Your task to perform on an android device: toggle wifi Image 0: 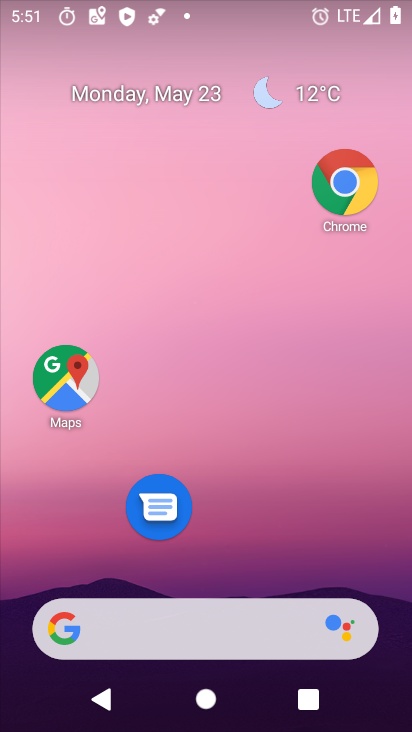
Step 0: drag from (185, 29) to (140, 452)
Your task to perform on an android device: toggle wifi Image 1: 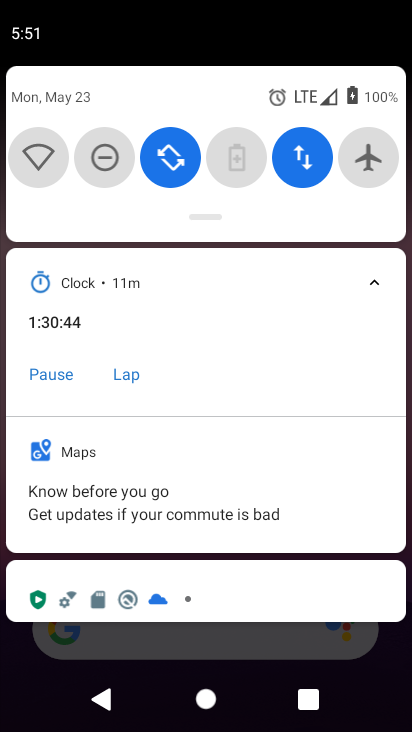
Step 1: drag from (93, 273) to (81, 581)
Your task to perform on an android device: toggle wifi Image 2: 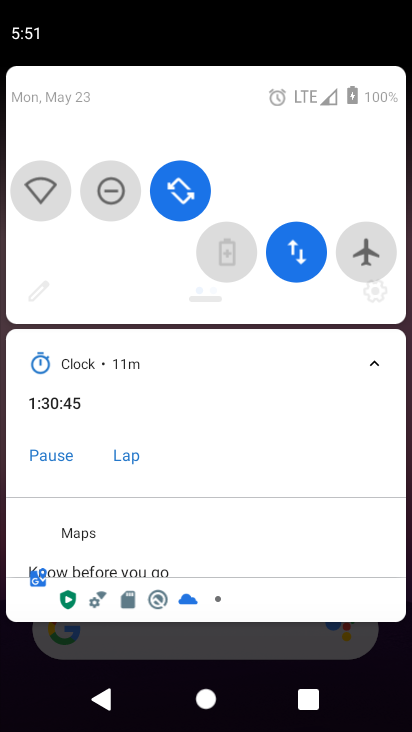
Step 2: click (45, 169)
Your task to perform on an android device: toggle wifi Image 3: 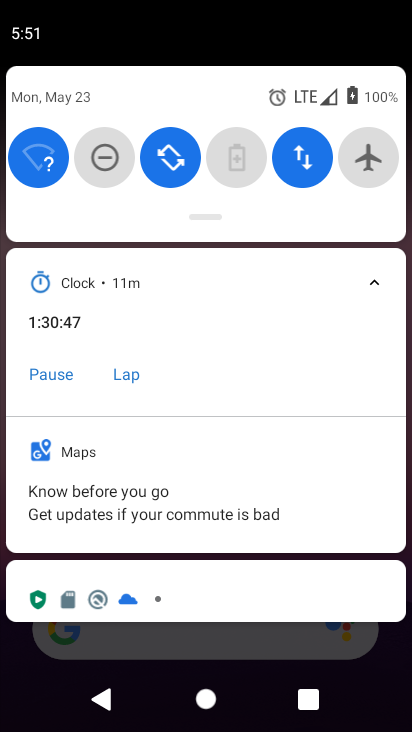
Step 3: click (45, 169)
Your task to perform on an android device: toggle wifi Image 4: 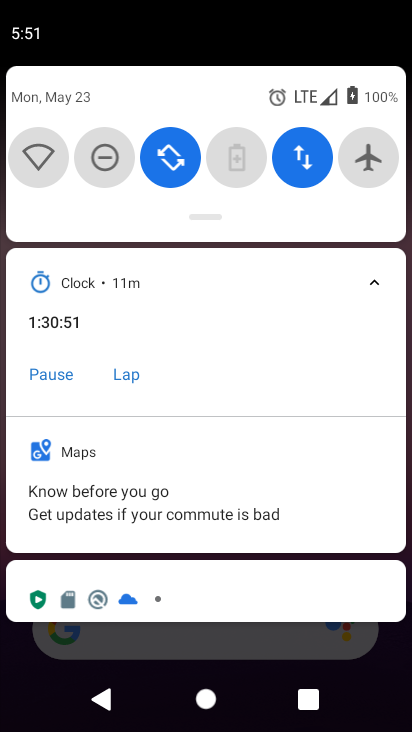
Step 4: click (45, 169)
Your task to perform on an android device: toggle wifi Image 5: 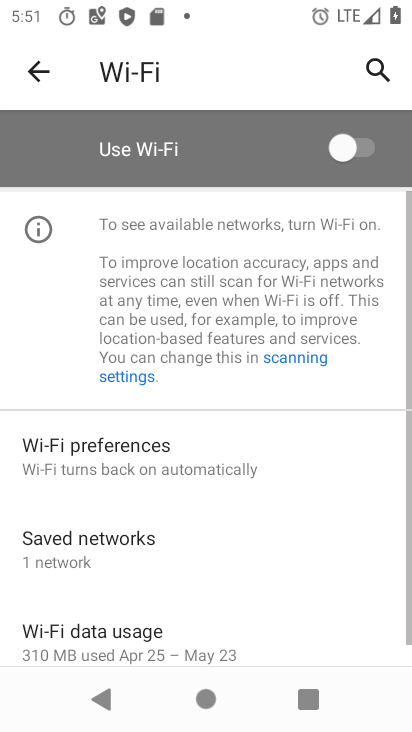
Step 5: click (46, 170)
Your task to perform on an android device: toggle wifi Image 6: 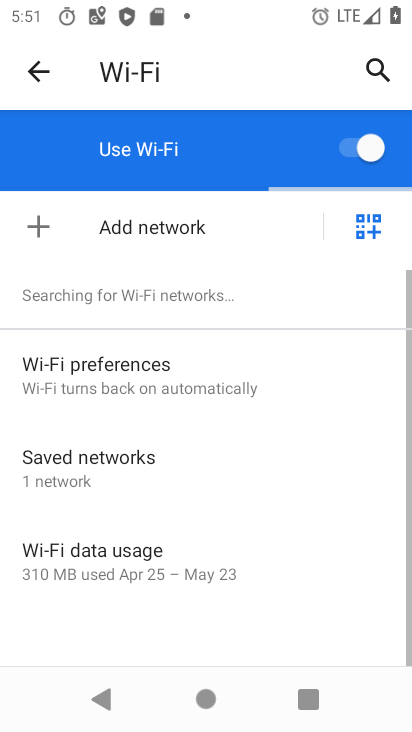
Step 6: click (356, 147)
Your task to perform on an android device: toggle wifi Image 7: 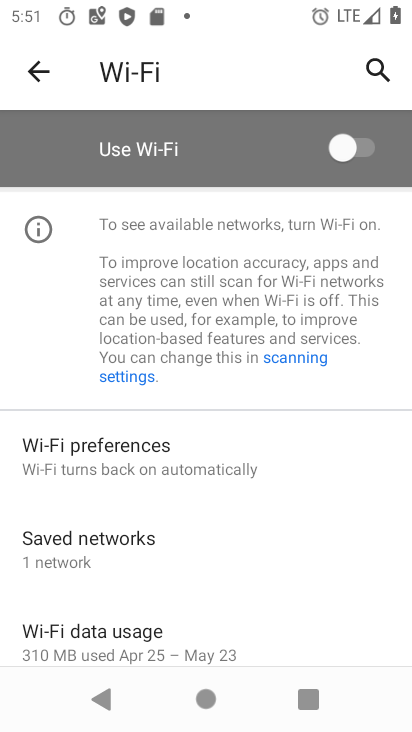
Step 7: click (368, 145)
Your task to perform on an android device: toggle wifi Image 8: 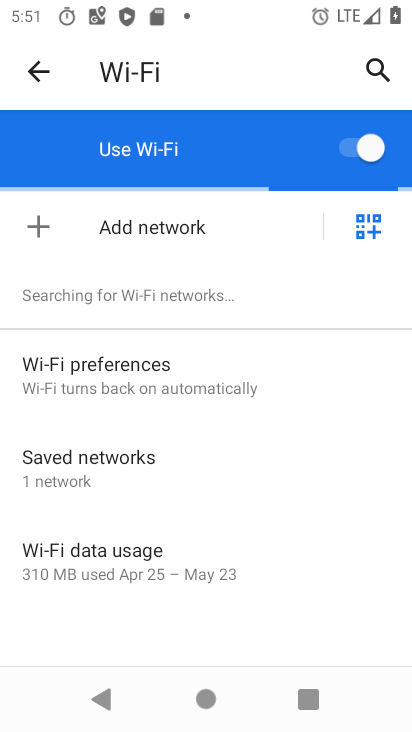
Step 8: task complete